Your task to perform on an android device: turn on showing notifications on the lock screen Image 0: 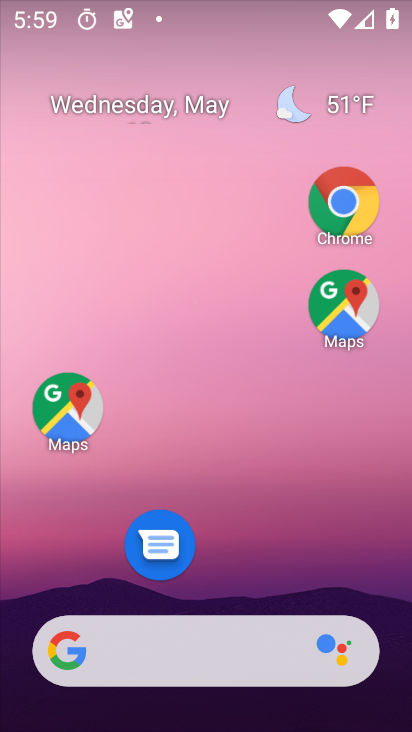
Step 0: drag from (201, 587) to (247, 96)
Your task to perform on an android device: turn on showing notifications on the lock screen Image 1: 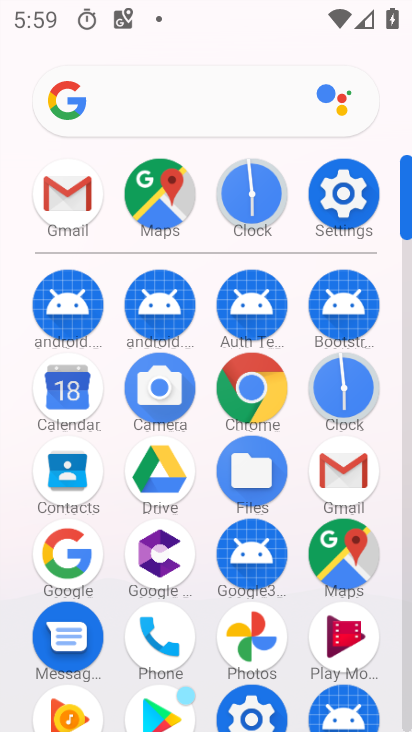
Step 1: click (348, 205)
Your task to perform on an android device: turn on showing notifications on the lock screen Image 2: 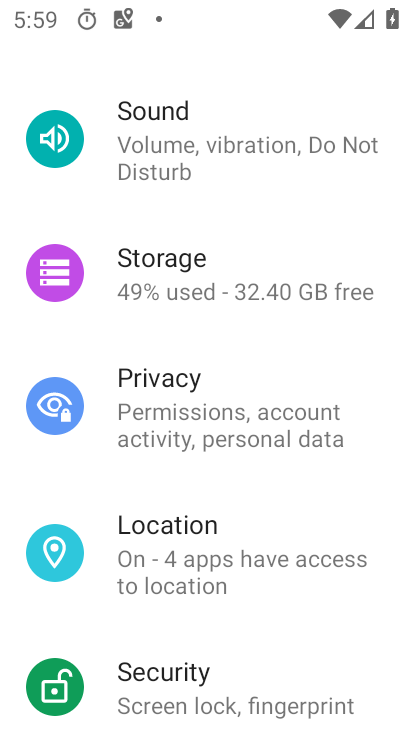
Step 2: drag from (265, 188) to (237, 531)
Your task to perform on an android device: turn on showing notifications on the lock screen Image 3: 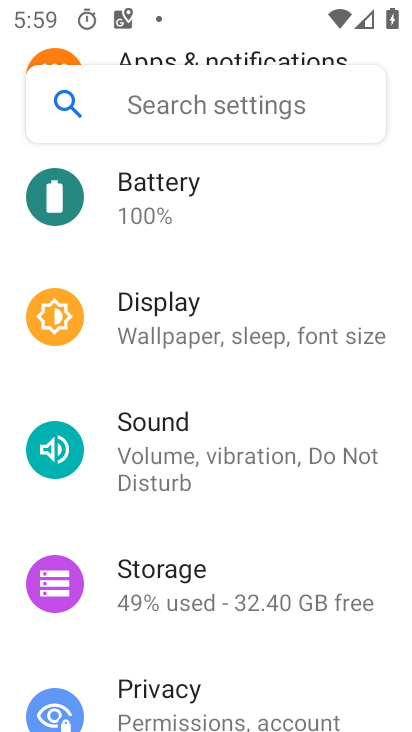
Step 3: drag from (186, 224) to (149, 553)
Your task to perform on an android device: turn on showing notifications on the lock screen Image 4: 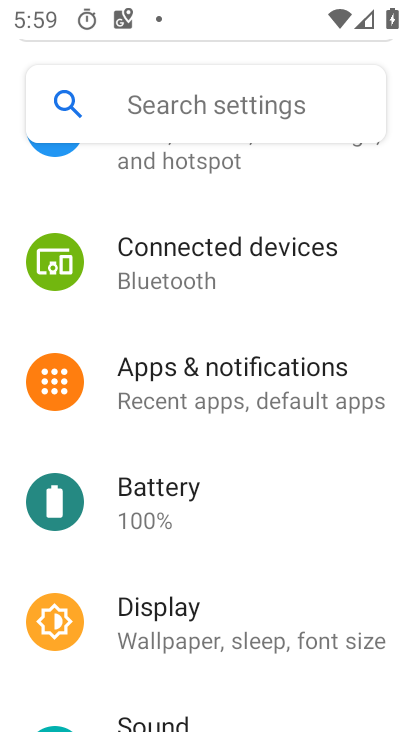
Step 4: click (218, 398)
Your task to perform on an android device: turn on showing notifications on the lock screen Image 5: 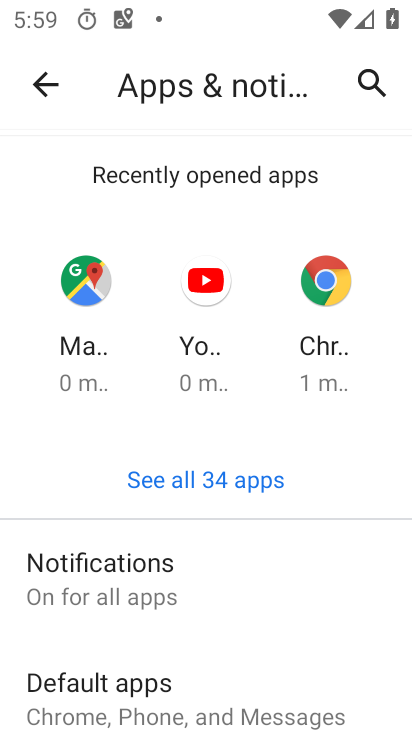
Step 5: click (125, 569)
Your task to perform on an android device: turn on showing notifications on the lock screen Image 6: 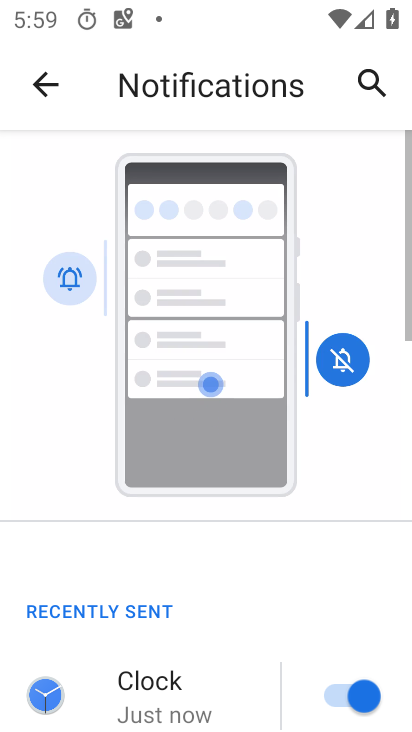
Step 6: drag from (140, 636) to (252, 176)
Your task to perform on an android device: turn on showing notifications on the lock screen Image 7: 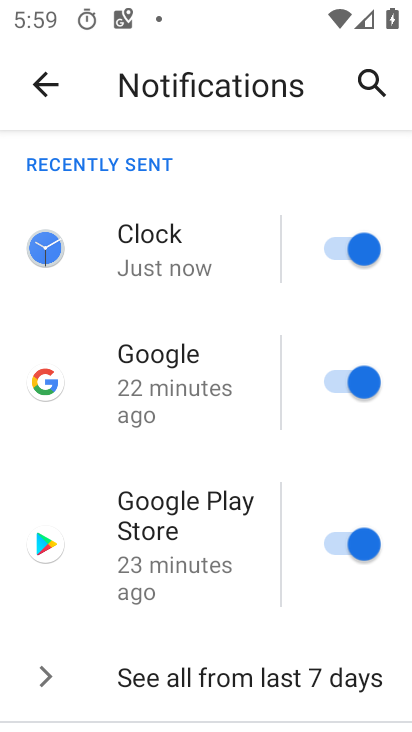
Step 7: drag from (197, 600) to (242, 241)
Your task to perform on an android device: turn on showing notifications on the lock screen Image 8: 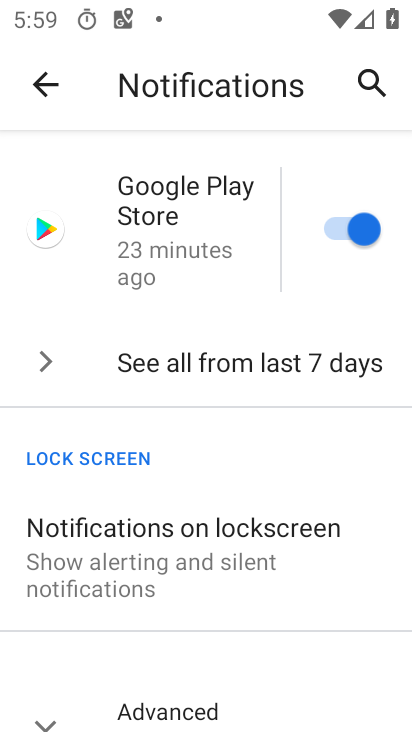
Step 8: click (164, 593)
Your task to perform on an android device: turn on showing notifications on the lock screen Image 9: 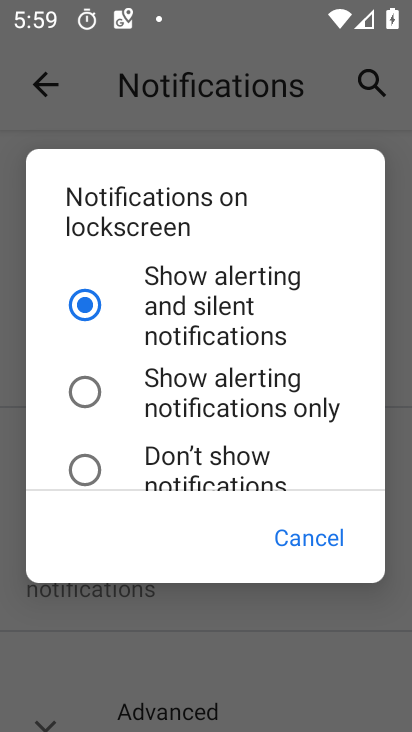
Step 9: task complete